Your task to perform on an android device: How much does a 2 bedroom apartment rent for in San Francisco? Image 0: 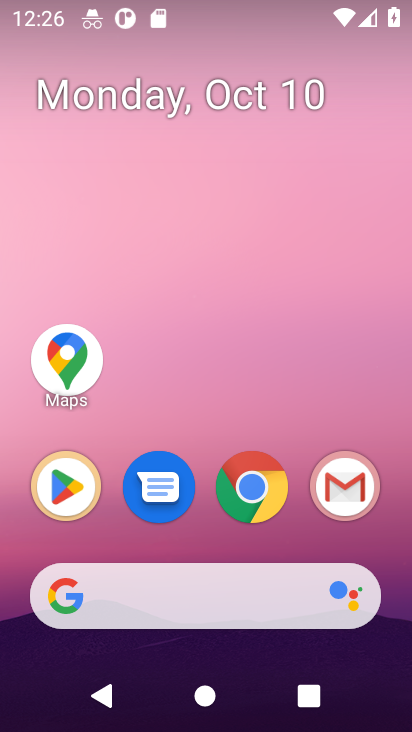
Step 0: click (243, 488)
Your task to perform on an android device: How much does a 2 bedroom apartment rent for in San Francisco? Image 1: 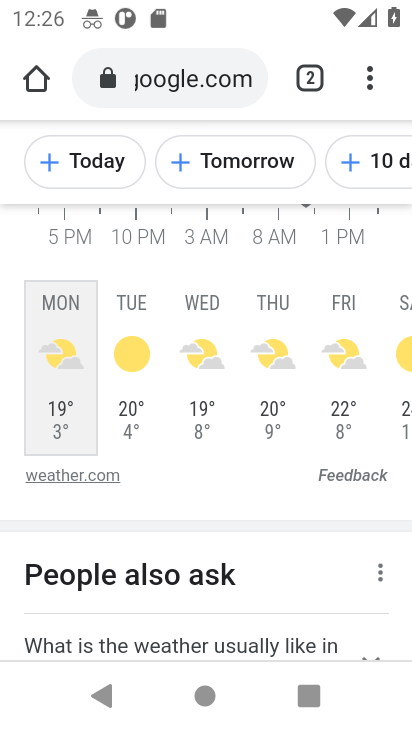
Step 1: click (196, 83)
Your task to perform on an android device: How much does a 2 bedroom apartment rent for in San Francisco? Image 2: 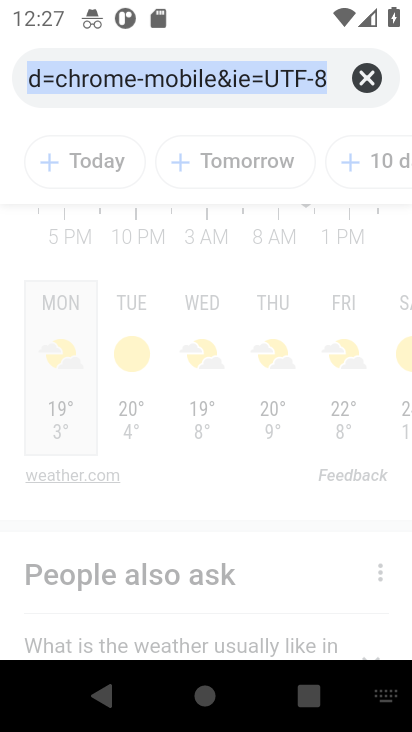
Step 2: type "2 bedroom apartment rent in san francisco"
Your task to perform on an android device: How much does a 2 bedroom apartment rent for in San Francisco? Image 3: 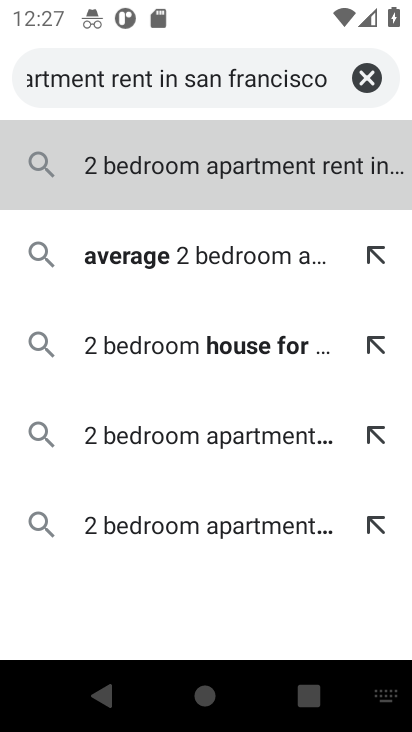
Step 3: press enter
Your task to perform on an android device: How much does a 2 bedroom apartment rent for in San Francisco? Image 4: 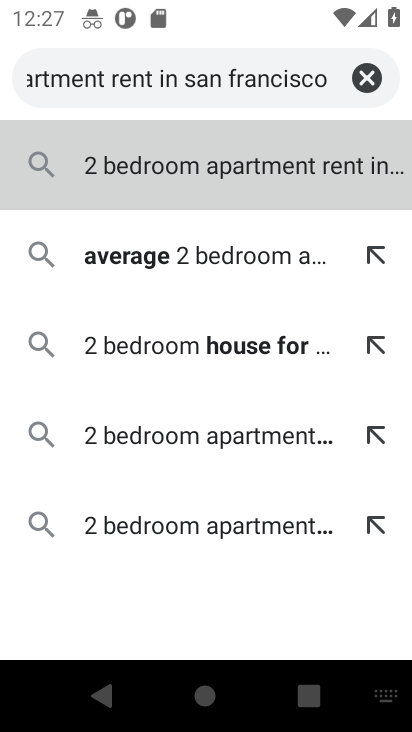
Step 4: type ""
Your task to perform on an android device: How much does a 2 bedroom apartment rent for in San Francisco? Image 5: 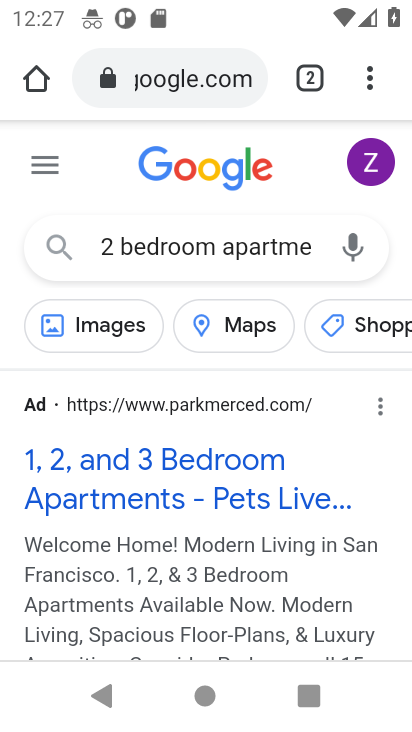
Step 5: drag from (188, 619) to (159, 193)
Your task to perform on an android device: How much does a 2 bedroom apartment rent for in San Francisco? Image 6: 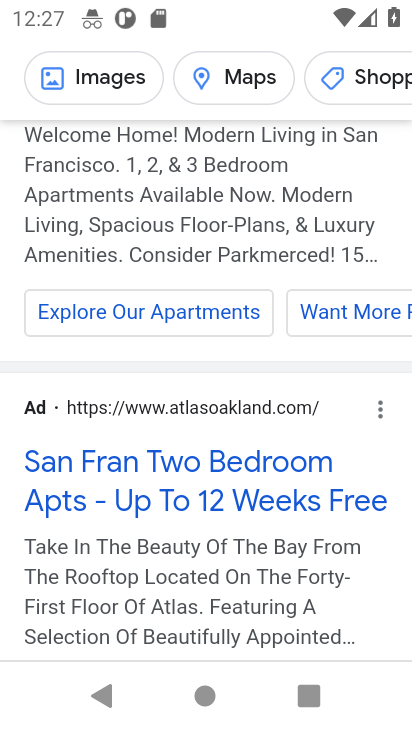
Step 6: drag from (184, 556) to (187, 212)
Your task to perform on an android device: How much does a 2 bedroom apartment rent for in San Francisco? Image 7: 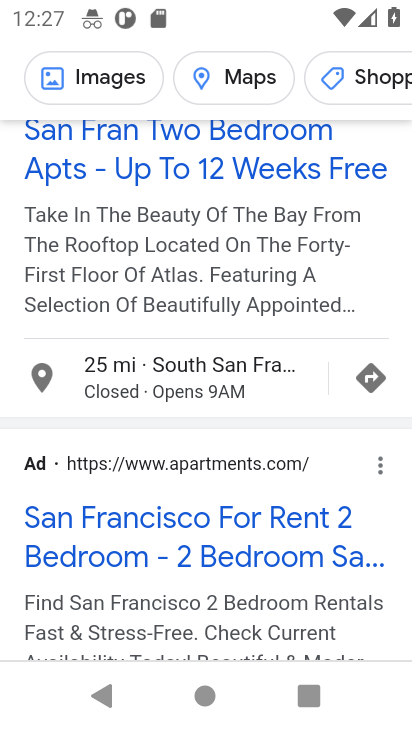
Step 7: drag from (207, 602) to (208, 489)
Your task to perform on an android device: How much does a 2 bedroom apartment rent for in San Francisco? Image 8: 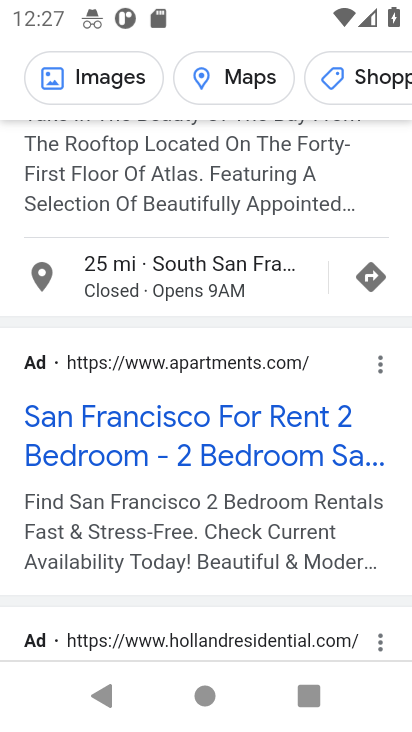
Step 8: click (210, 416)
Your task to perform on an android device: How much does a 2 bedroom apartment rent for in San Francisco? Image 9: 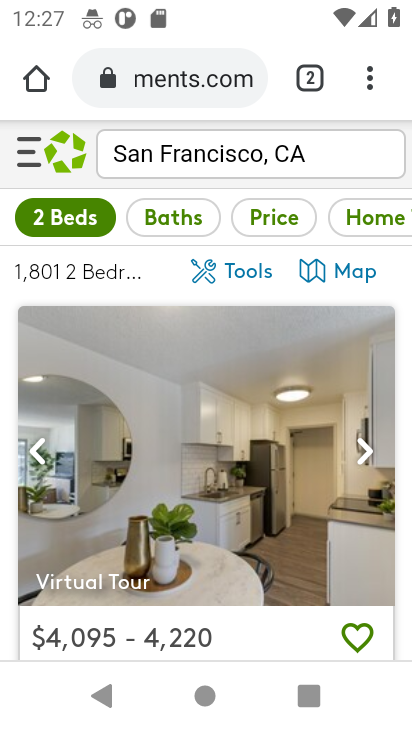
Step 9: task complete